Your task to perform on an android device: open app "Firefox Browser" (install if not already installed) Image 0: 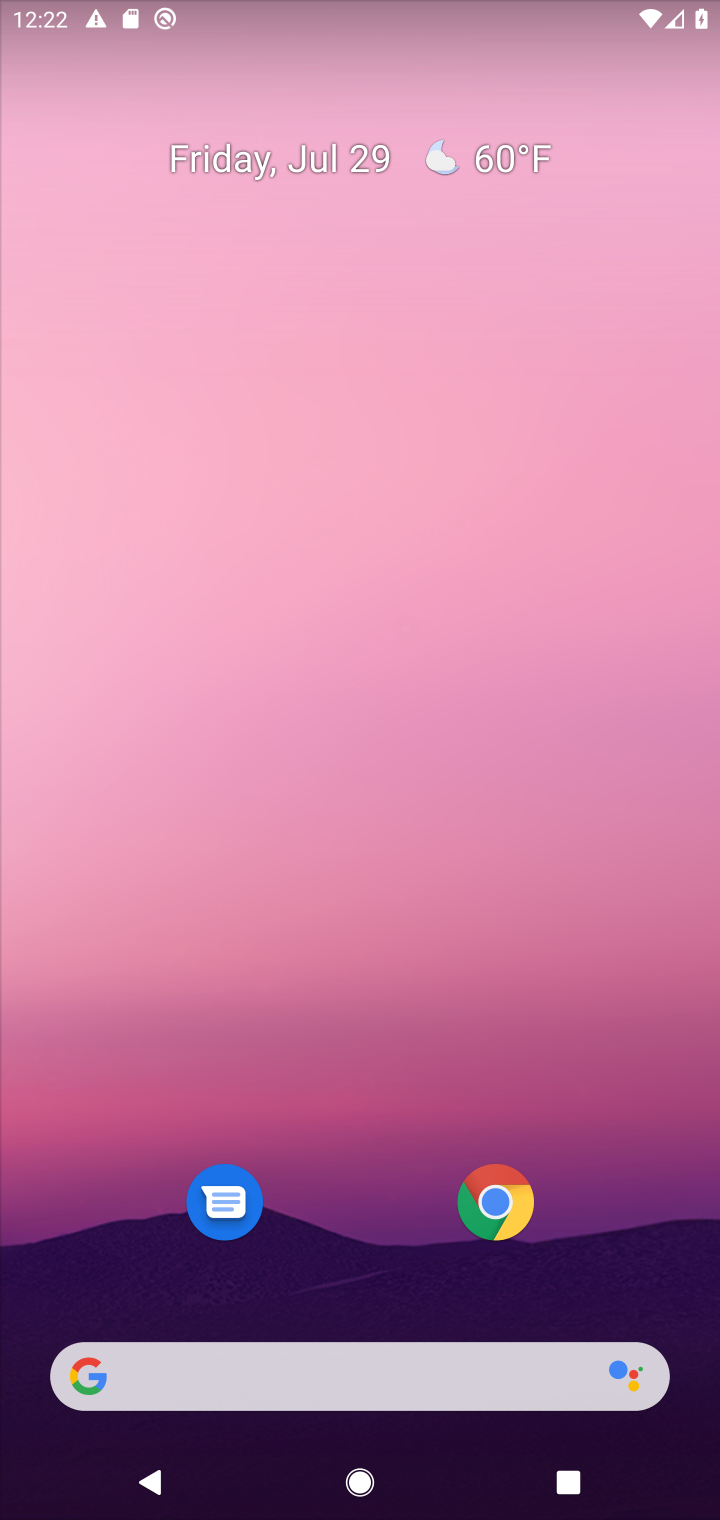
Step 0: click (644, 1019)
Your task to perform on an android device: open app "Firefox Browser" (install if not already installed) Image 1: 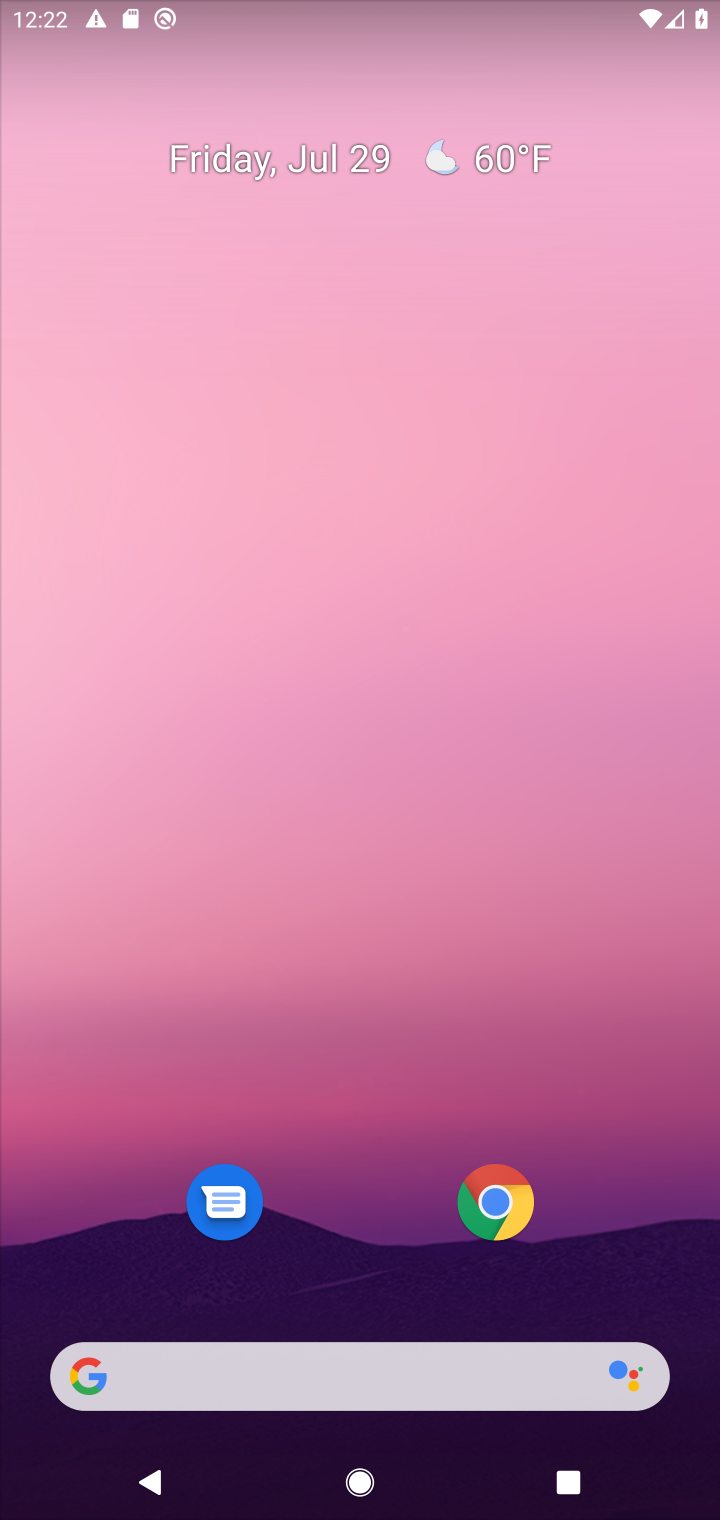
Step 1: click (336, 1370)
Your task to perform on an android device: open app "Firefox Browser" (install if not already installed) Image 2: 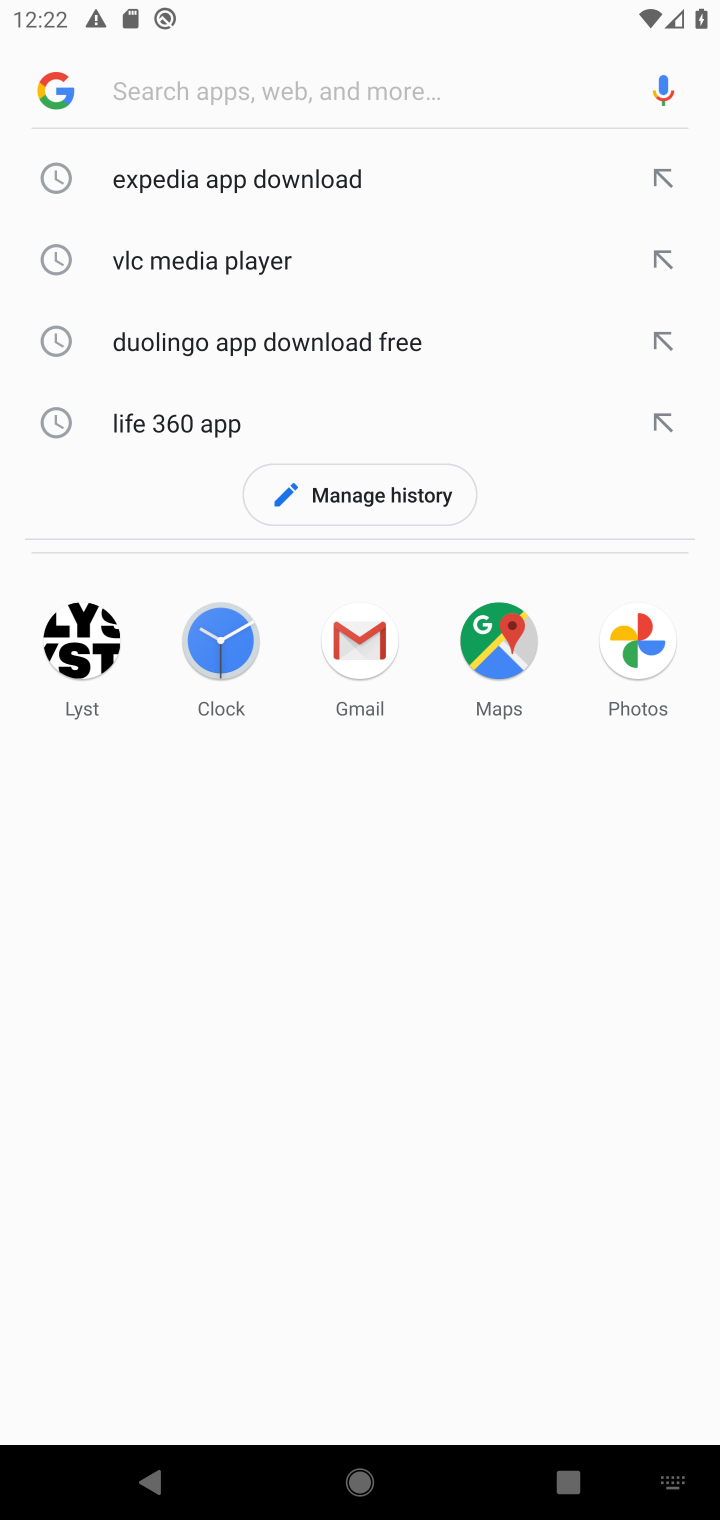
Step 2: type "firefox"
Your task to perform on an android device: open app "Firefox Browser" (install if not already installed) Image 3: 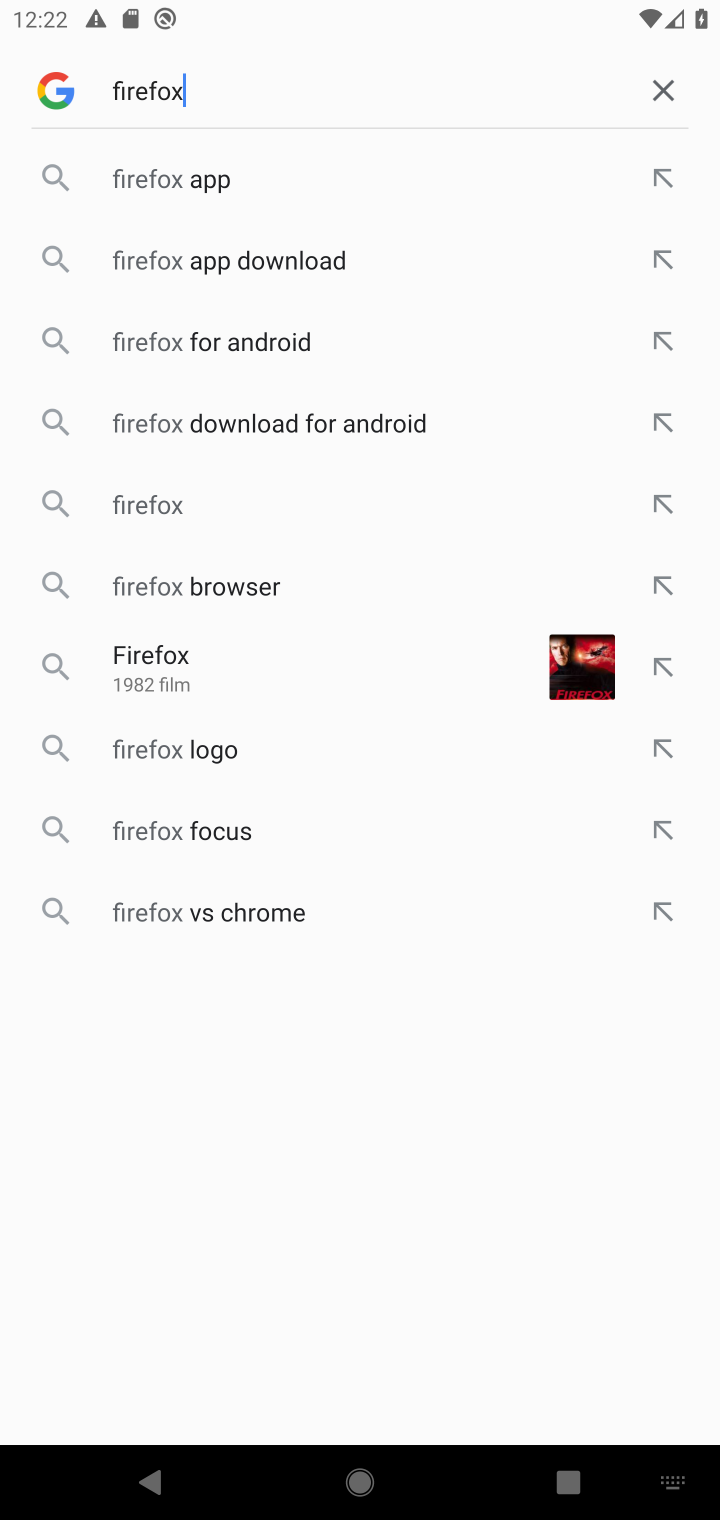
Step 3: click (323, 147)
Your task to perform on an android device: open app "Firefox Browser" (install if not already installed) Image 4: 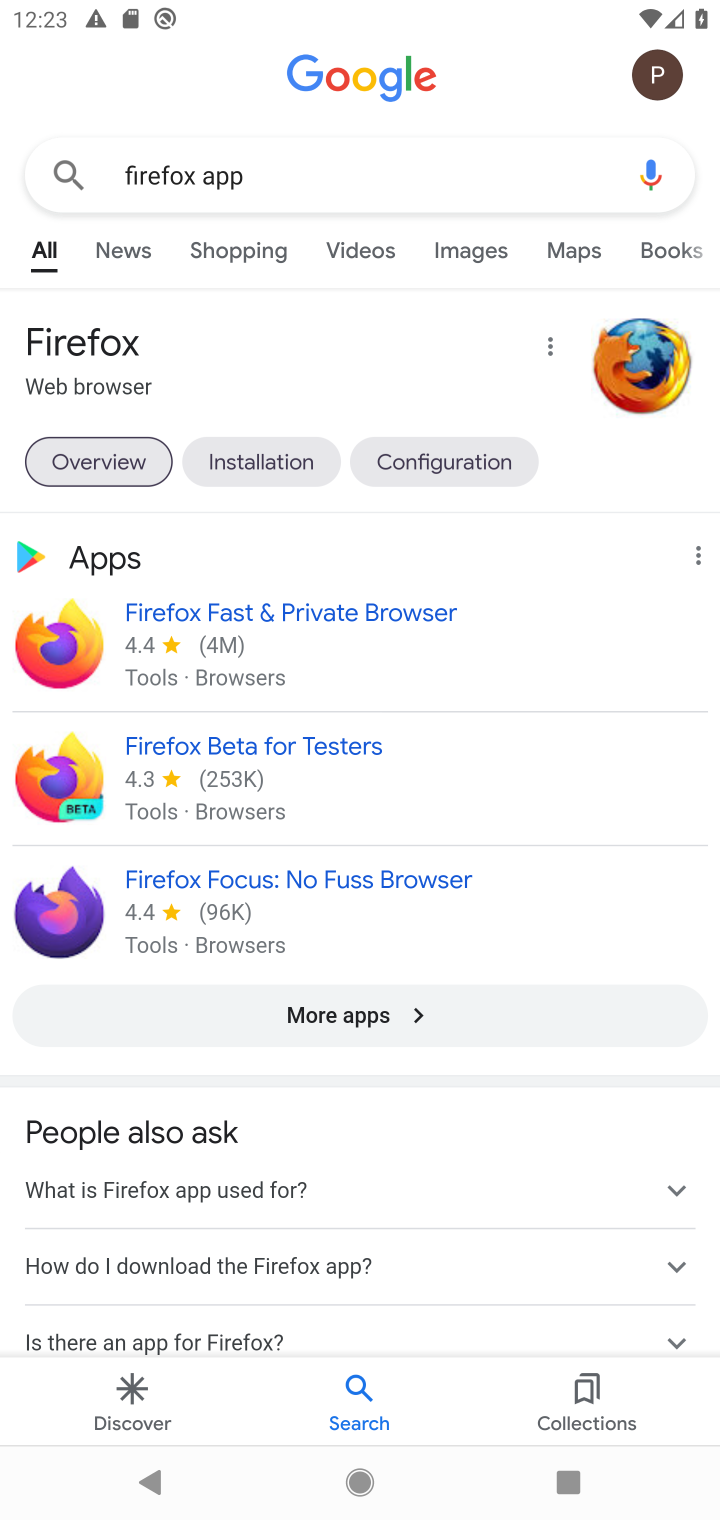
Step 4: click (334, 675)
Your task to perform on an android device: open app "Firefox Browser" (install if not already installed) Image 5: 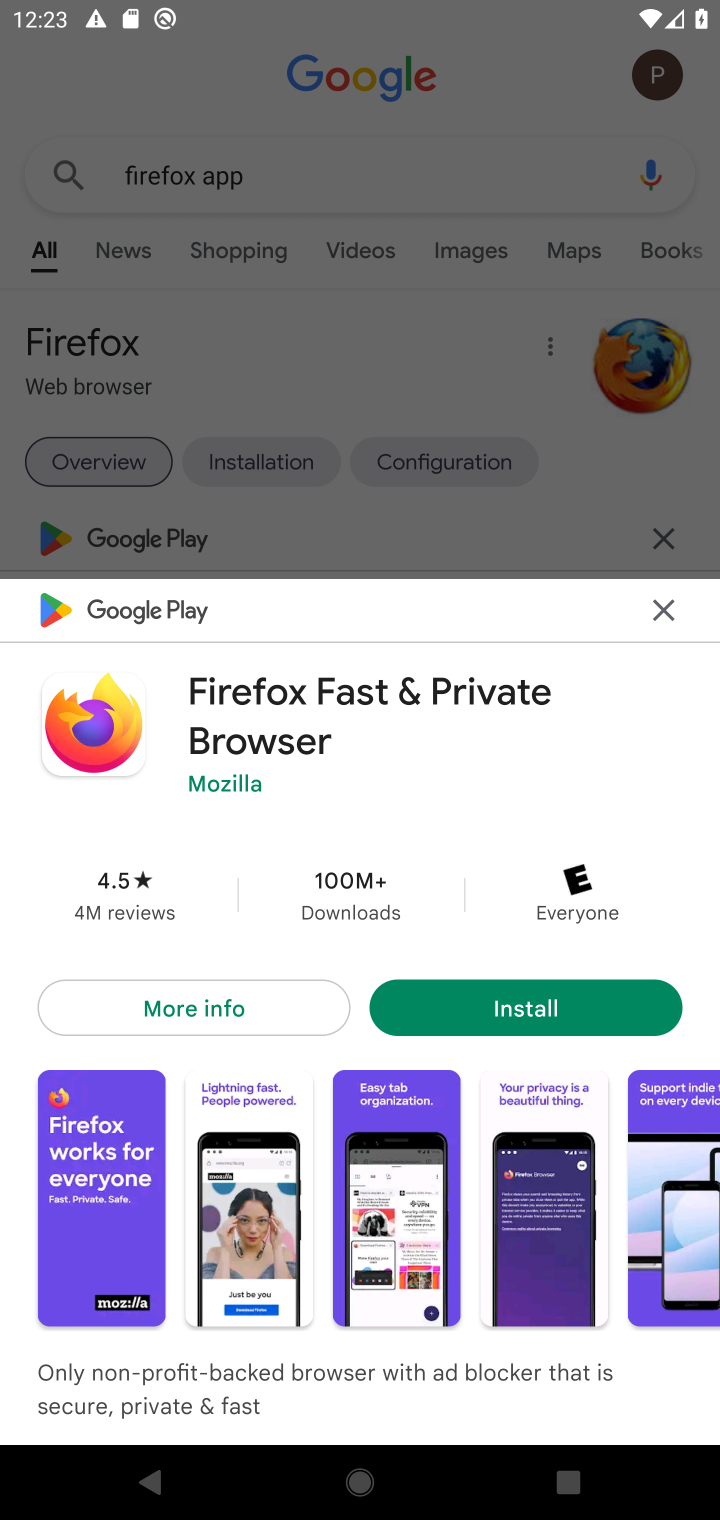
Step 5: click (533, 1014)
Your task to perform on an android device: open app "Firefox Browser" (install if not already installed) Image 6: 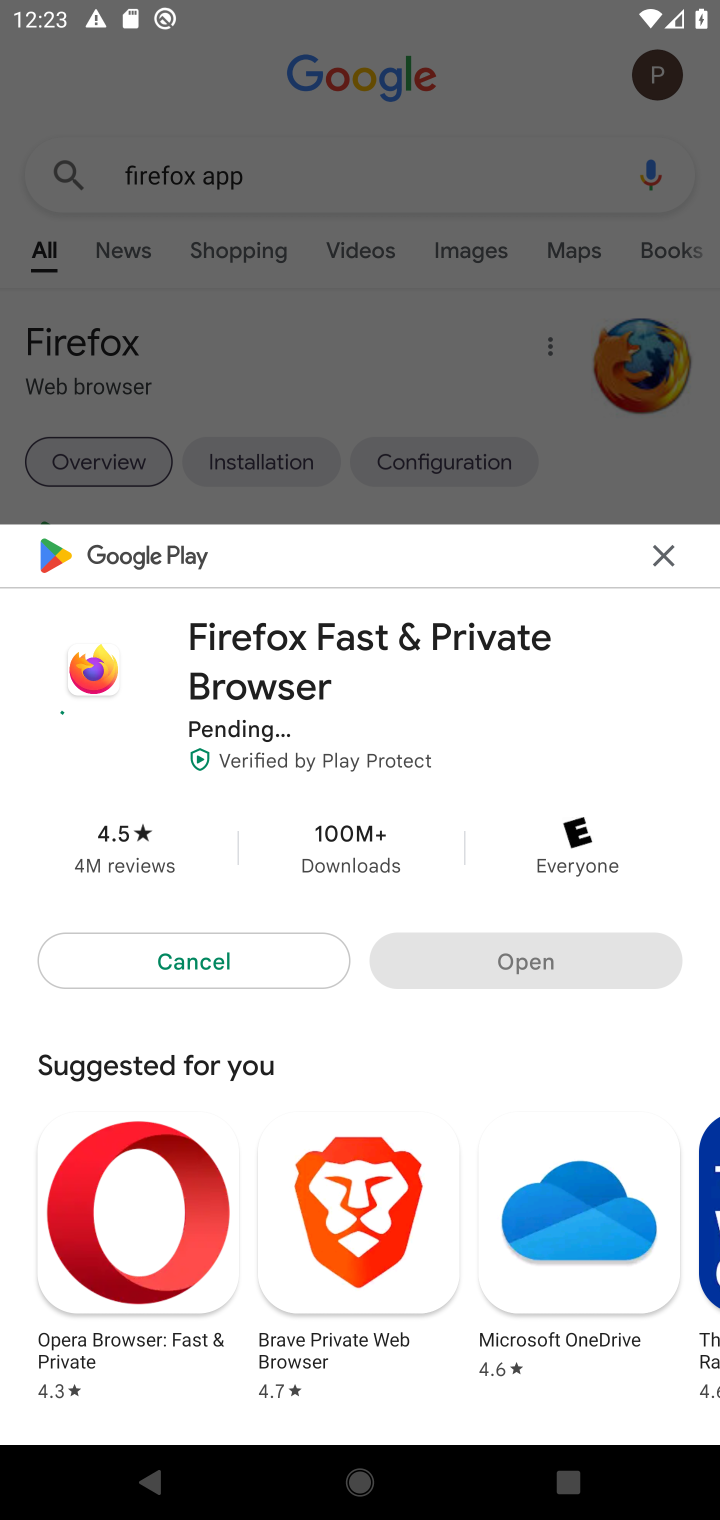
Step 6: task complete